Your task to perform on an android device: Do I have any events tomorrow? Image 0: 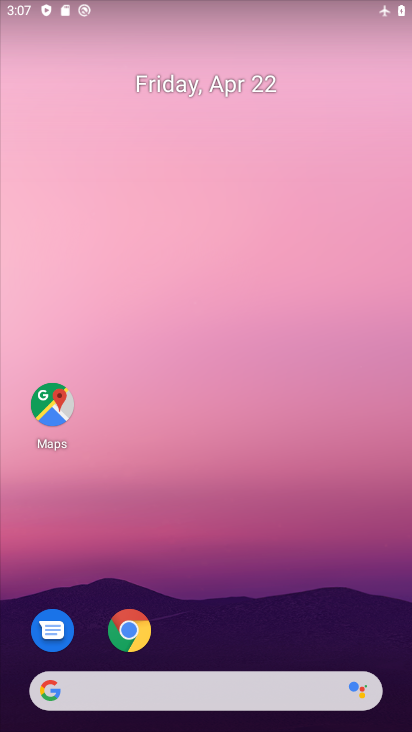
Step 0: drag from (191, 557) to (261, 263)
Your task to perform on an android device: Do I have any events tomorrow? Image 1: 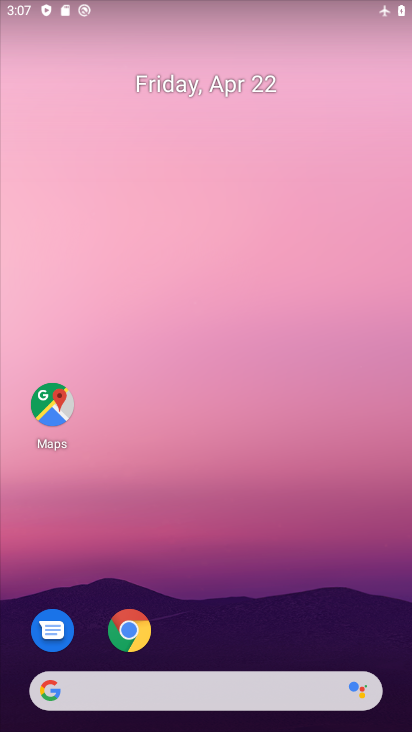
Step 1: drag from (213, 643) to (301, 60)
Your task to perform on an android device: Do I have any events tomorrow? Image 2: 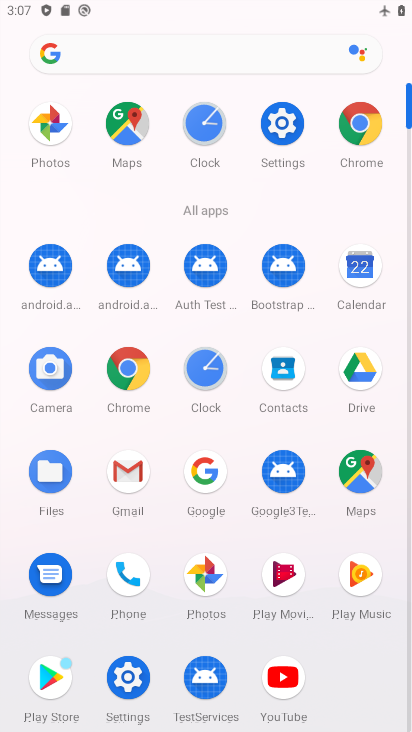
Step 2: click (367, 268)
Your task to perform on an android device: Do I have any events tomorrow? Image 3: 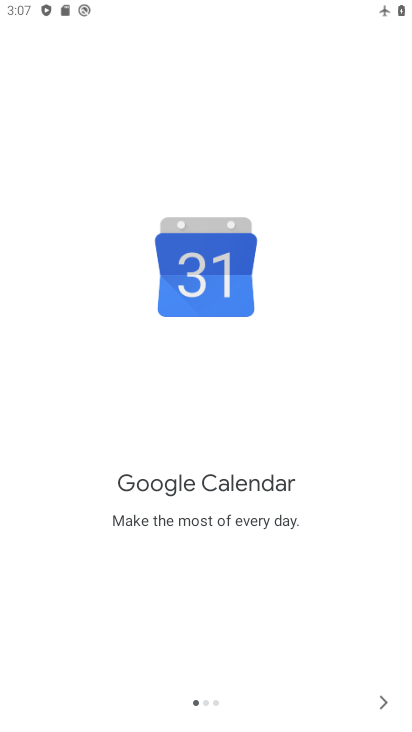
Step 3: click (373, 690)
Your task to perform on an android device: Do I have any events tomorrow? Image 4: 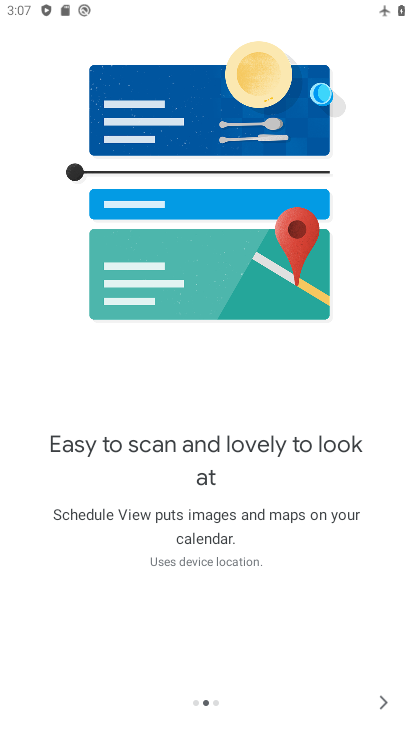
Step 4: click (380, 697)
Your task to perform on an android device: Do I have any events tomorrow? Image 5: 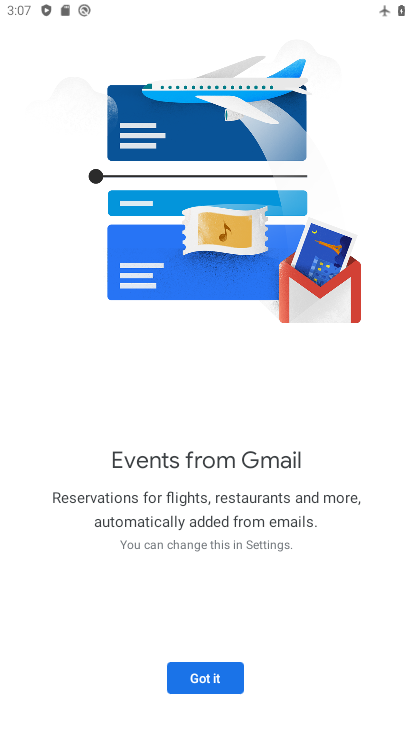
Step 5: click (208, 677)
Your task to perform on an android device: Do I have any events tomorrow? Image 6: 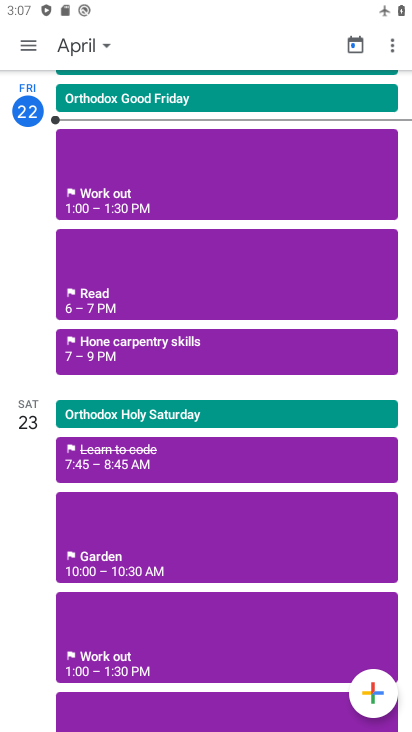
Step 6: click (25, 45)
Your task to perform on an android device: Do I have any events tomorrow? Image 7: 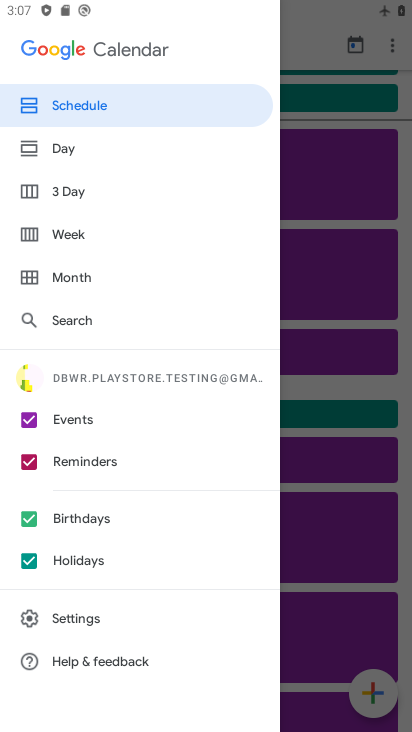
Step 7: click (28, 461)
Your task to perform on an android device: Do I have any events tomorrow? Image 8: 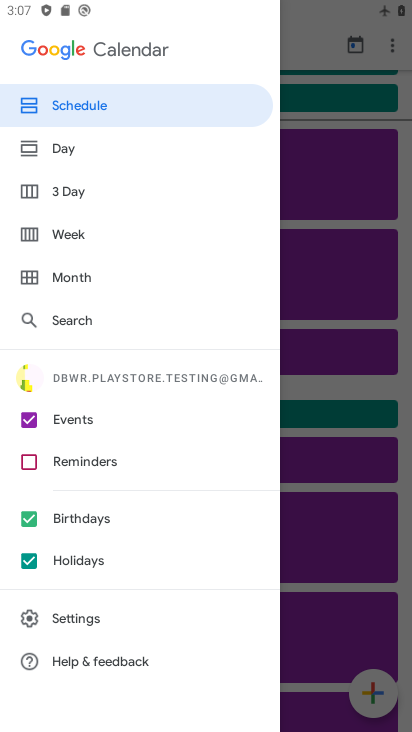
Step 8: click (29, 512)
Your task to perform on an android device: Do I have any events tomorrow? Image 9: 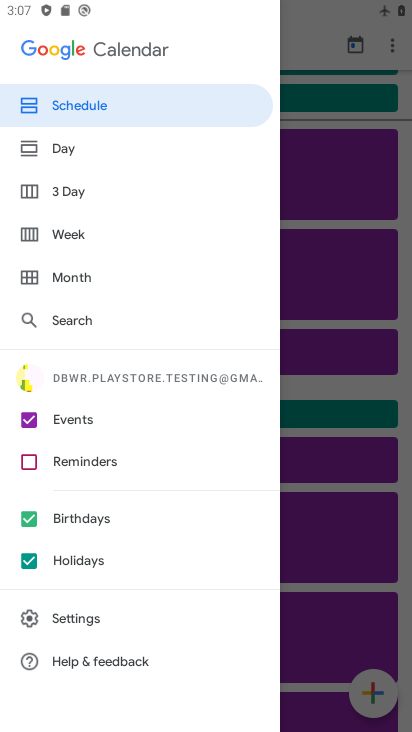
Step 9: click (27, 566)
Your task to perform on an android device: Do I have any events tomorrow? Image 10: 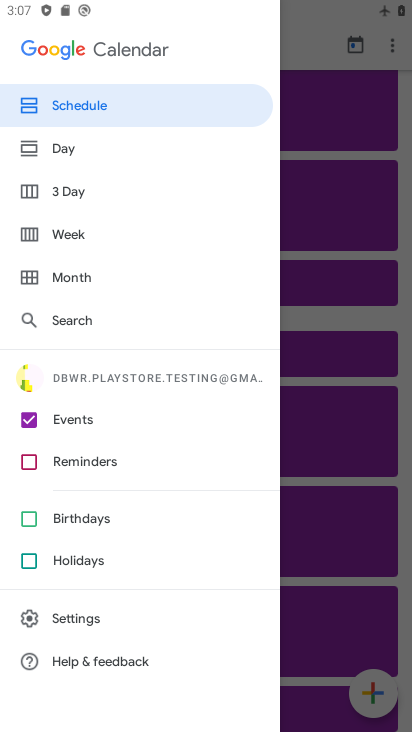
Step 10: drag from (114, 345) to (97, 409)
Your task to perform on an android device: Do I have any events tomorrow? Image 11: 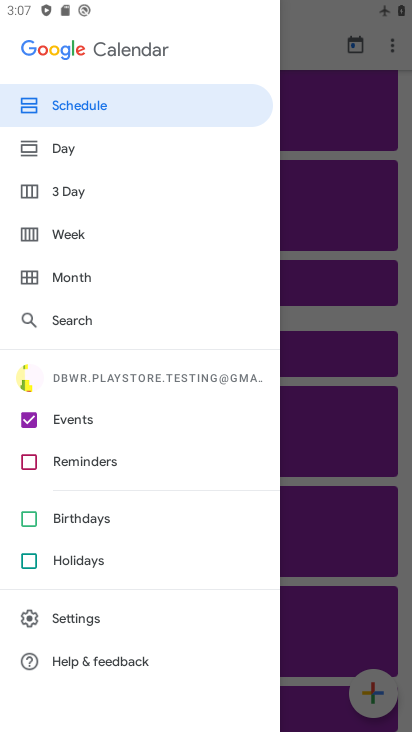
Step 11: click (89, 195)
Your task to perform on an android device: Do I have any events tomorrow? Image 12: 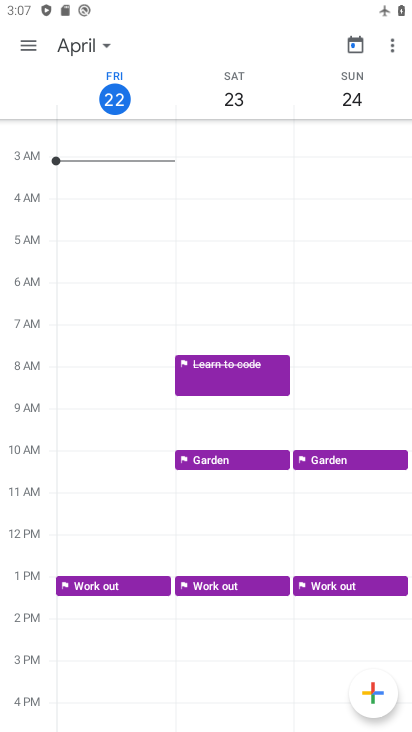
Step 12: task complete